Your task to perform on an android device: Check the weather Image 0: 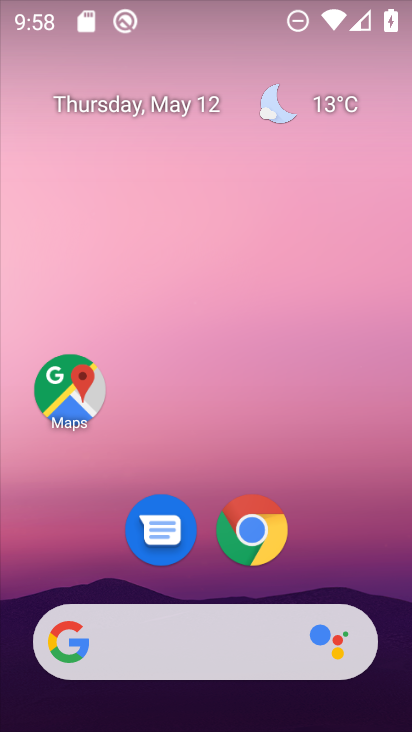
Step 0: drag from (279, 409) to (234, 177)
Your task to perform on an android device: Check the weather Image 1: 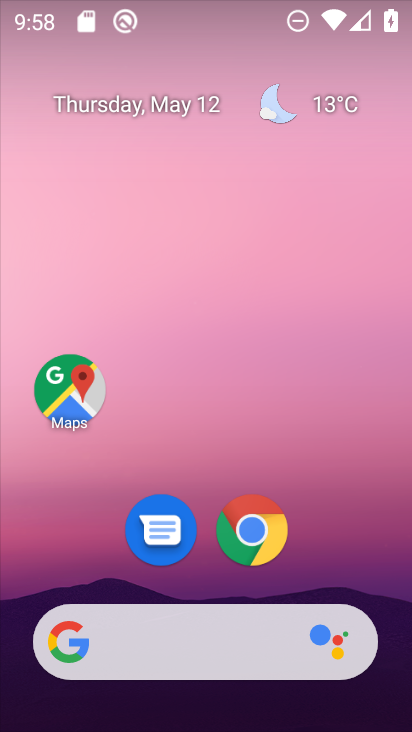
Step 1: click (308, 102)
Your task to perform on an android device: Check the weather Image 2: 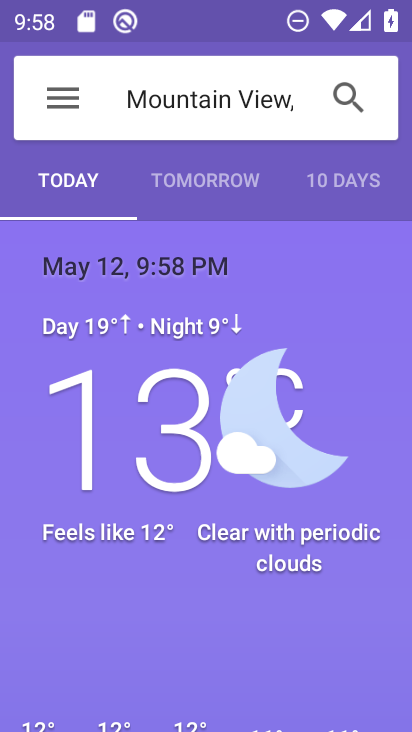
Step 2: task complete